Your task to perform on an android device: Open calendar and show me the first week of next month Image 0: 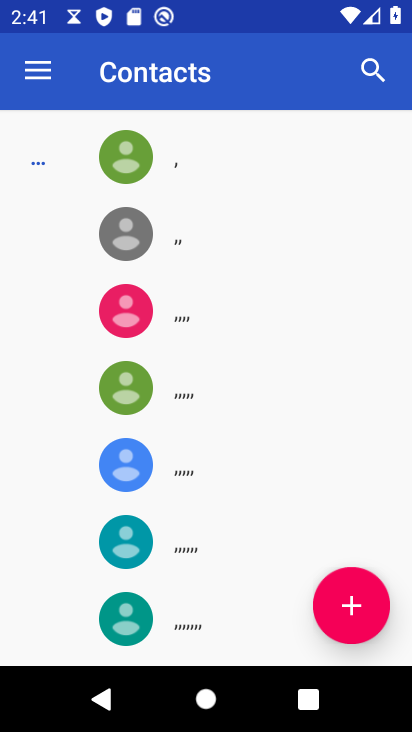
Step 0: press home button
Your task to perform on an android device: Open calendar and show me the first week of next month Image 1: 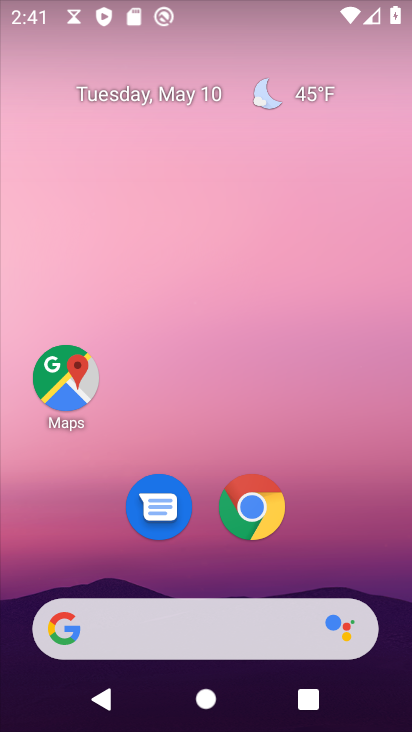
Step 1: drag from (310, 424) to (91, 43)
Your task to perform on an android device: Open calendar and show me the first week of next month Image 2: 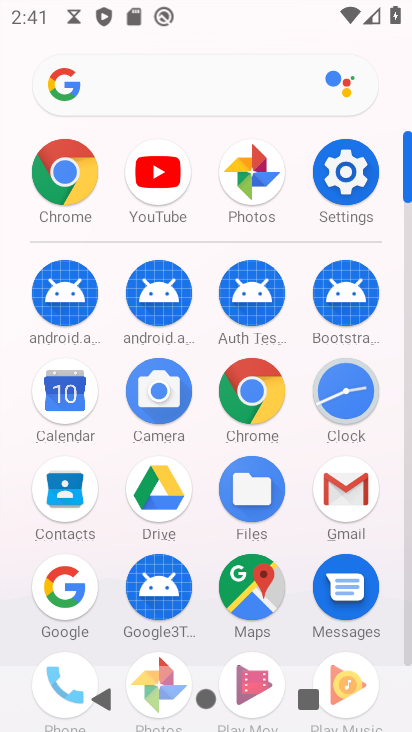
Step 2: click (74, 404)
Your task to perform on an android device: Open calendar and show me the first week of next month Image 3: 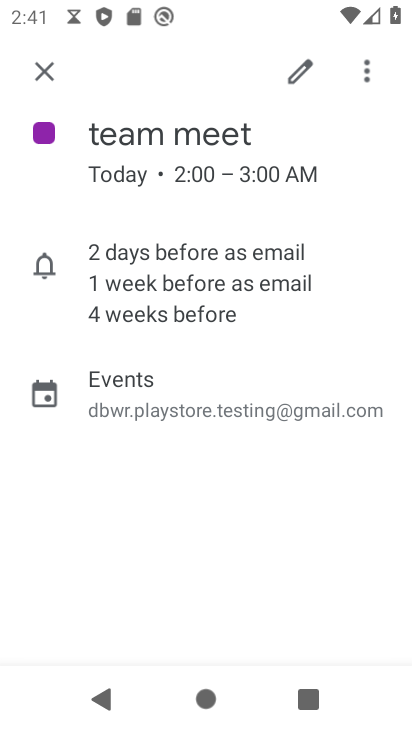
Step 3: press back button
Your task to perform on an android device: Open calendar and show me the first week of next month Image 4: 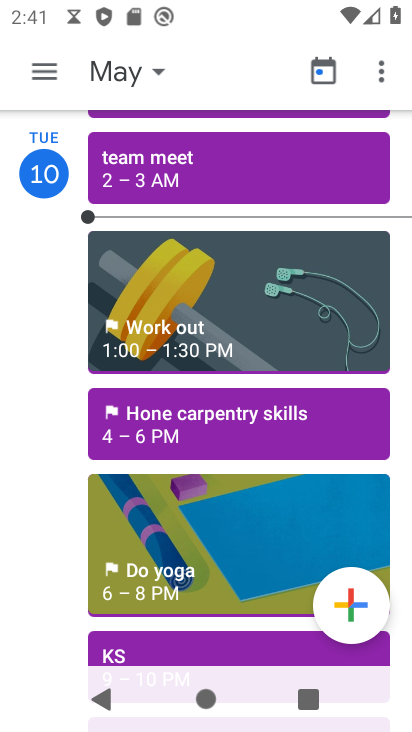
Step 4: click (130, 78)
Your task to perform on an android device: Open calendar and show me the first week of next month Image 5: 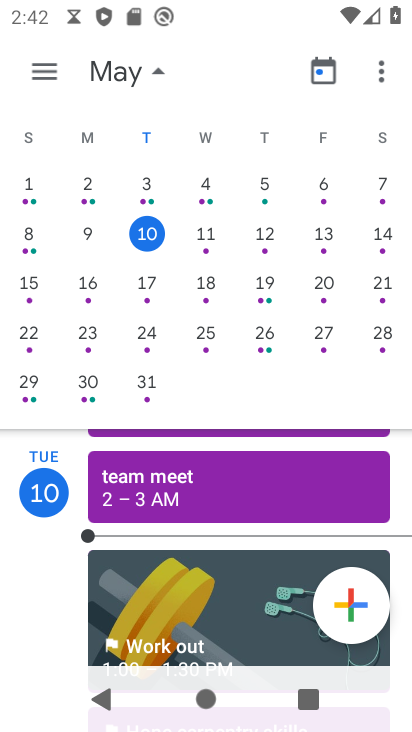
Step 5: drag from (374, 303) to (1, 274)
Your task to perform on an android device: Open calendar and show me the first week of next month Image 6: 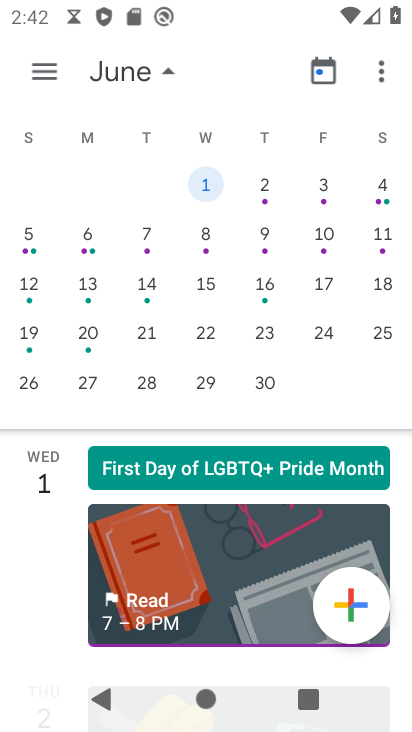
Step 6: click (50, 65)
Your task to perform on an android device: Open calendar and show me the first week of next month Image 7: 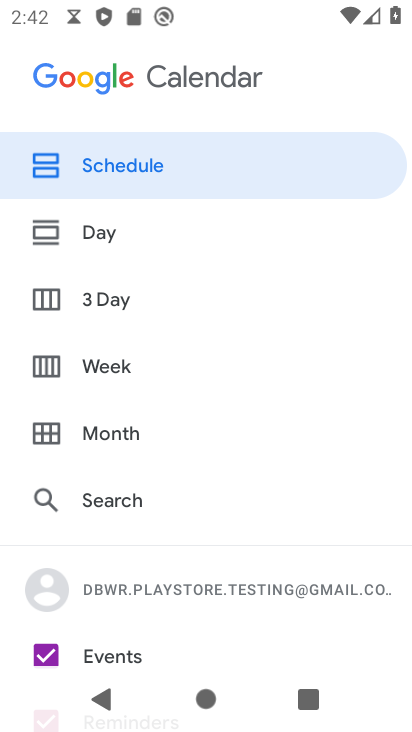
Step 7: click (96, 369)
Your task to perform on an android device: Open calendar and show me the first week of next month Image 8: 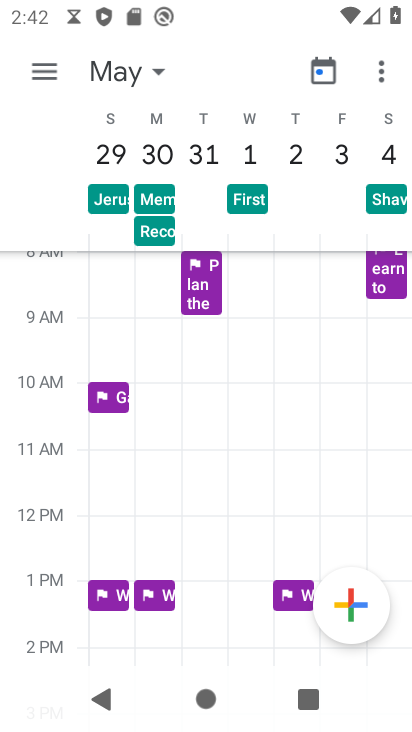
Step 8: task complete